Your task to perform on an android device: turn vacation reply on in the gmail app Image 0: 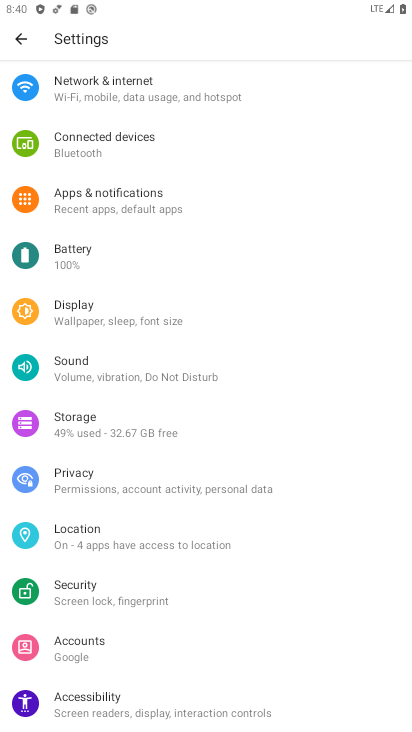
Step 0: press home button
Your task to perform on an android device: turn vacation reply on in the gmail app Image 1: 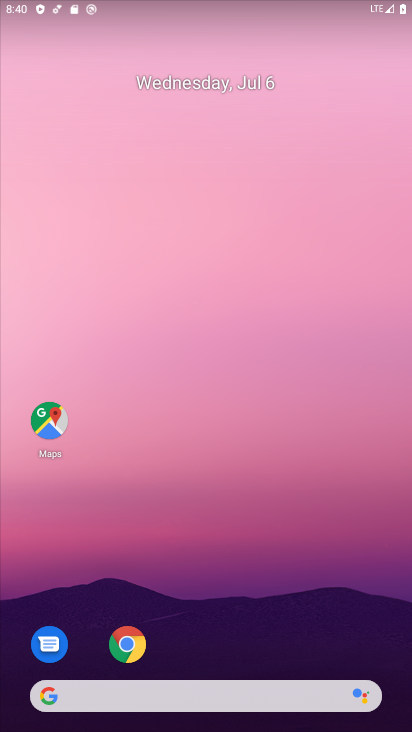
Step 1: drag from (250, 656) to (250, 105)
Your task to perform on an android device: turn vacation reply on in the gmail app Image 2: 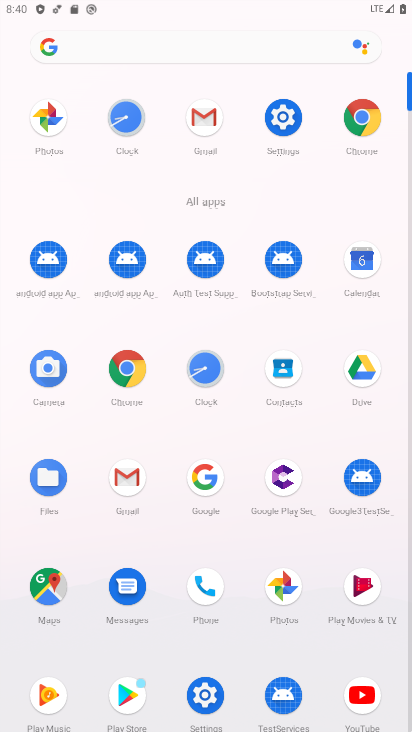
Step 2: click (208, 108)
Your task to perform on an android device: turn vacation reply on in the gmail app Image 3: 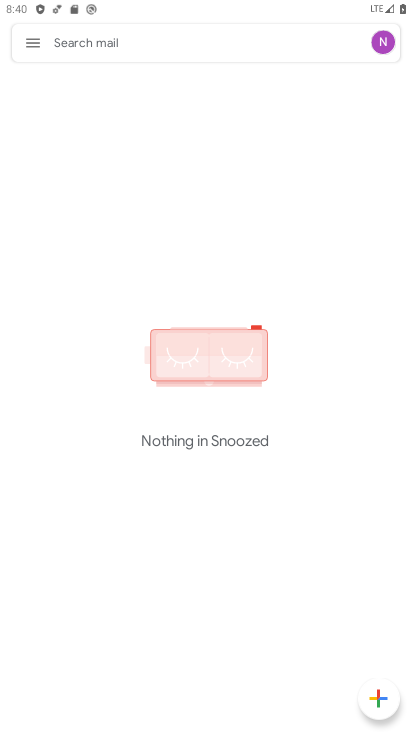
Step 3: press home button
Your task to perform on an android device: turn vacation reply on in the gmail app Image 4: 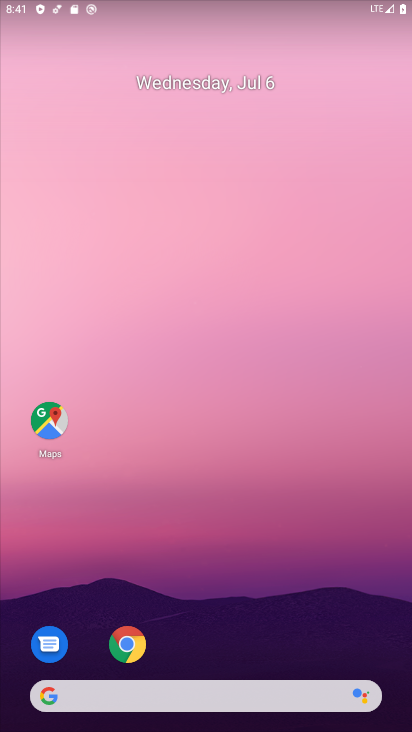
Step 4: drag from (184, 273) to (180, 140)
Your task to perform on an android device: turn vacation reply on in the gmail app Image 5: 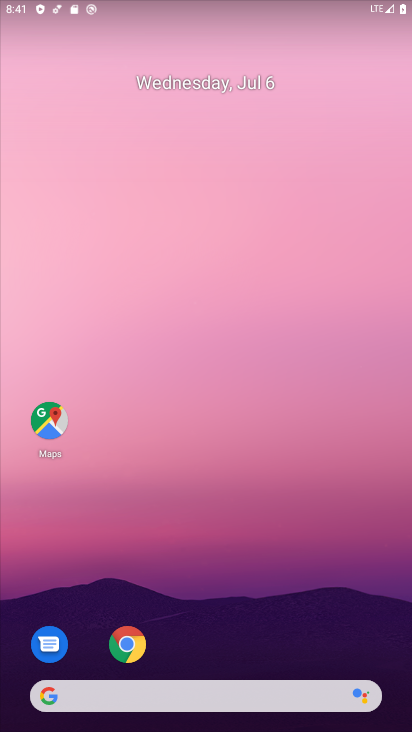
Step 5: drag from (213, 650) to (217, 196)
Your task to perform on an android device: turn vacation reply on in the gmail app Image 6: 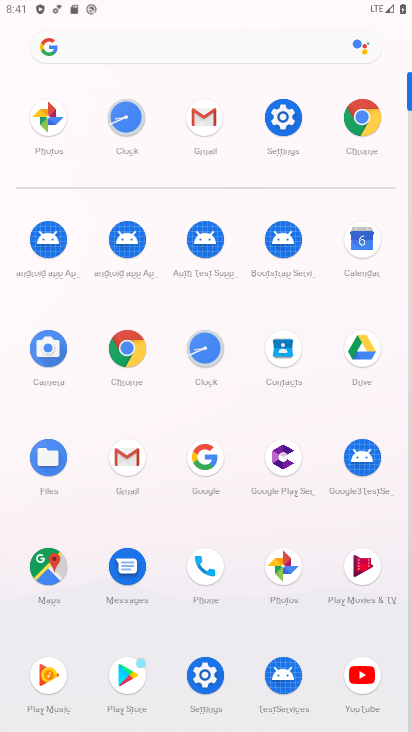
Step 6: click (217, 127)
Your task to perform on an android device: turn vacation reply on in the gmail app Image 7: 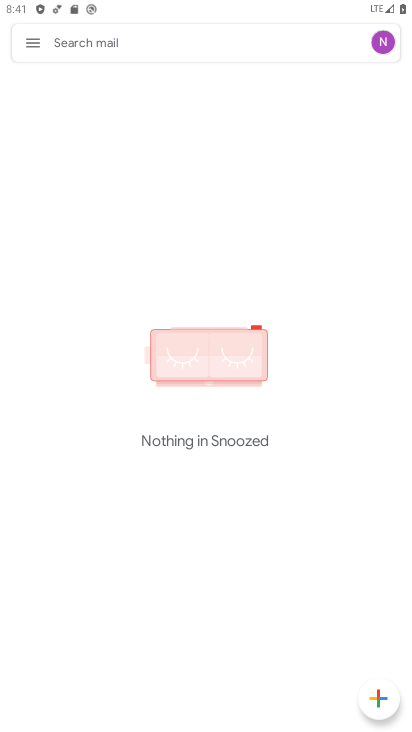
Step 7: drag from (215, 322) to (215, 417)
Your task to perform on an android device: turn vacation reply on in the gmail app Image 8: 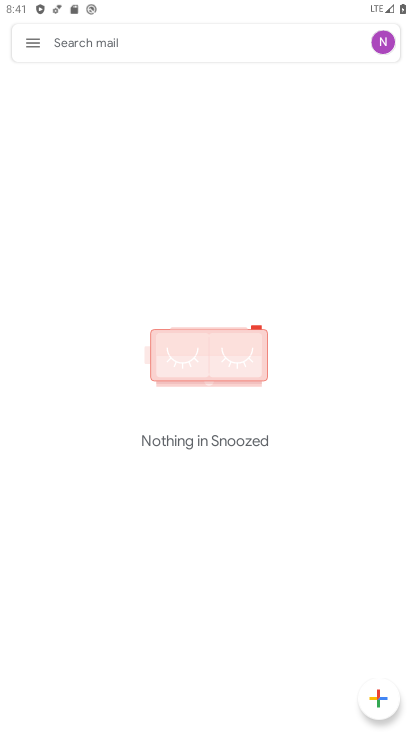
Step 8: click (27, 50)
Your task to perform on an android device: turn vacation reply on in the gmail app Image 9: 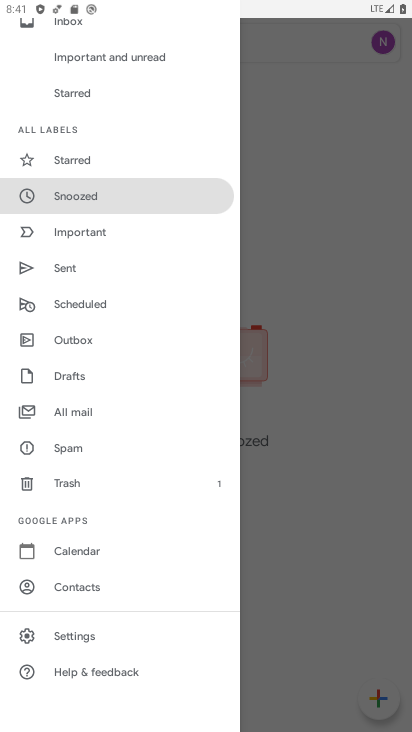
Step 9: click (92, 637)
Your task to perform on an android device: turn vacation reply on in the gmail app Image 10: 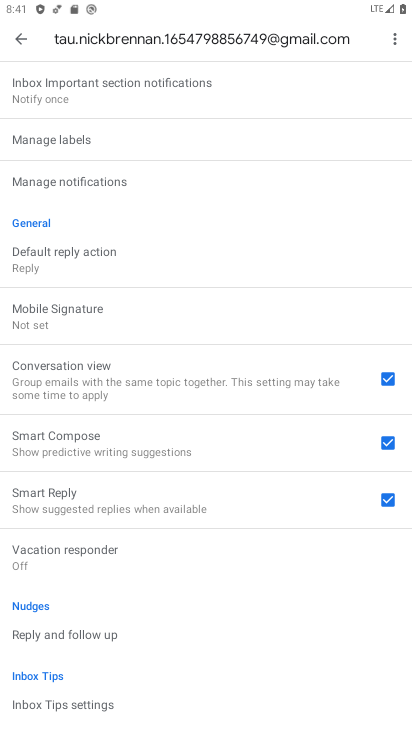
Step 10: click (101, 559)
Your task to perform on an android device: turn vacation reply on in the gmail app Image 11: 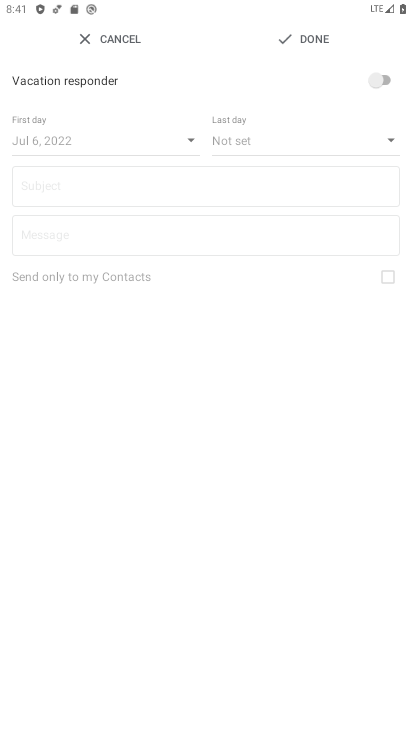
Step 11: click (387, 79)
Your task to perform on an android device: turn vacation reply on in the gmail app Image 12: 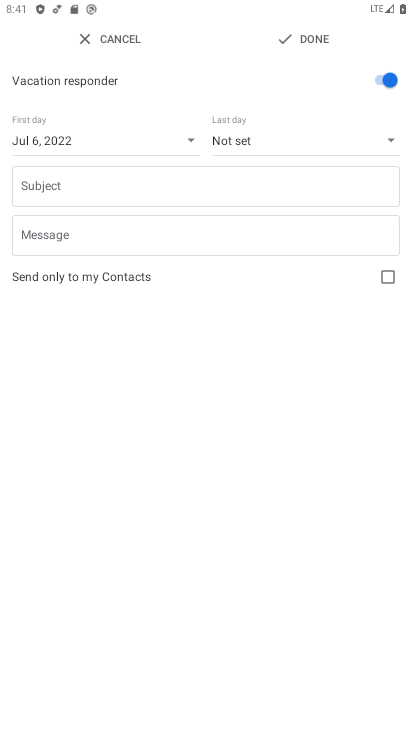
Step 12: click (299, 36)
Your task to perform on an android device: turn vacation reply on in the gmail app Image 13: 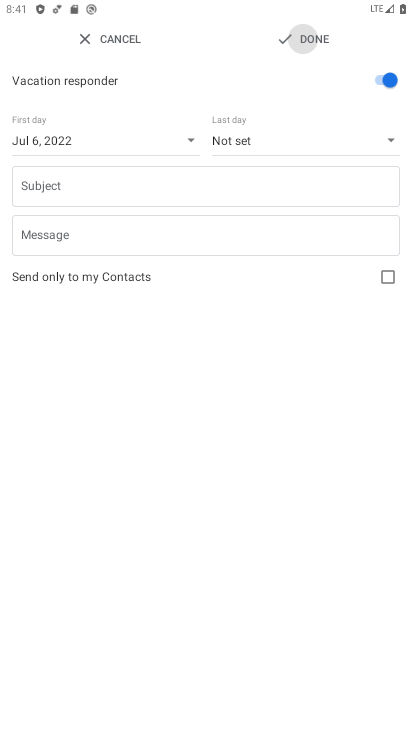
Step 13: task complete